Your task to perform on an android device: turn on javascript in the chrome app Image 0: 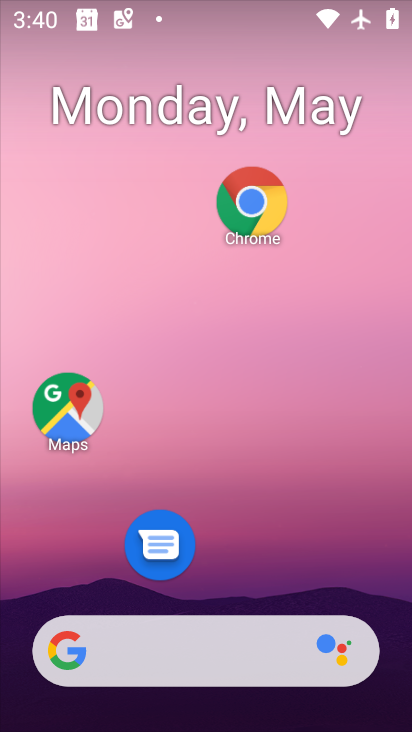
Step 0: drag from (234, 578) to (246, 460)
Your task to perform on an android device: turn on javascript in the chrome app Image 1: 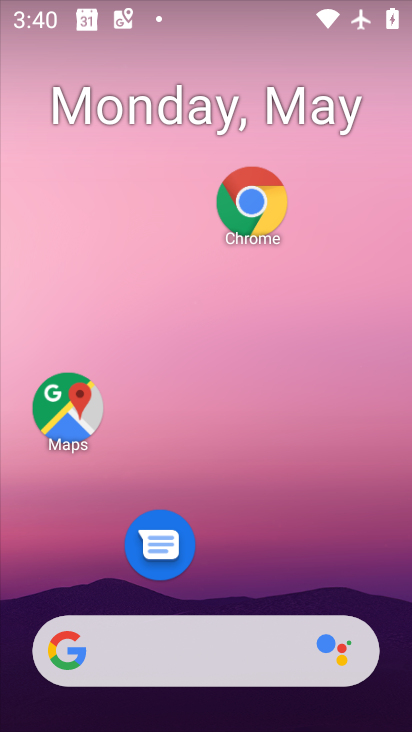
Step 1: click (247, 210)
Your task to perform on an android device: turn on javascript in the chrome app Image 2: 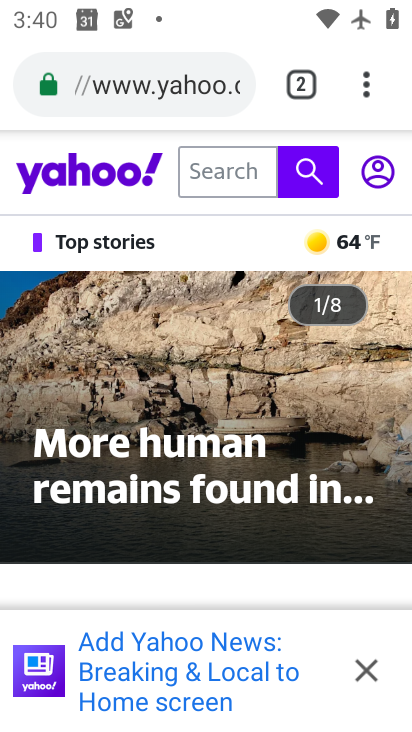
Step 2: click (364, 100)
Your task to perform on an android device: turn on javascript in the chrome app Image 3: 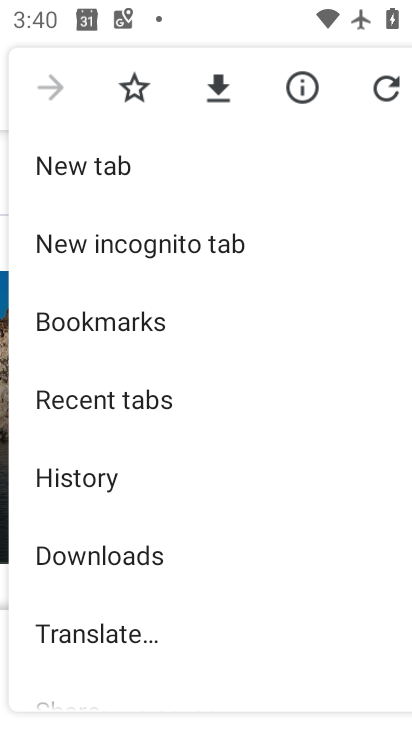
Step 3: drag from (170, 578) to (217, 361)
Your task to perform on an android device: turn on javascript in the chrome app Image 4: 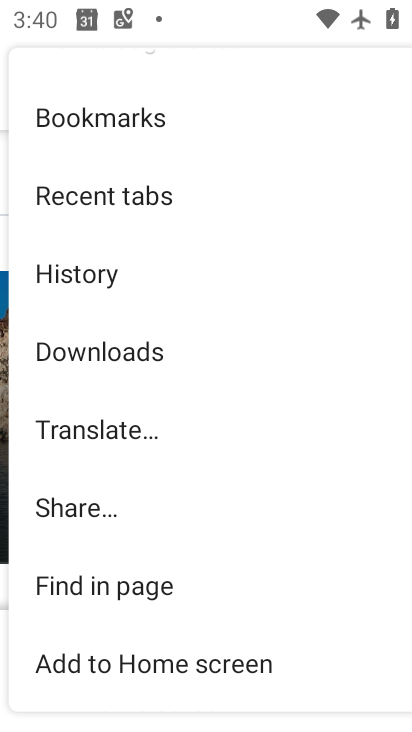
Step 4: drag from (199, 582) to (212, 347)
Your task to perform on an android device: turn on javascript in the chrome app Image 5: 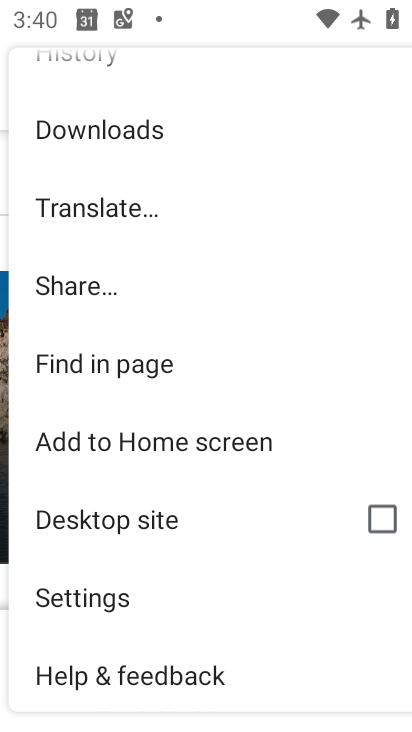
Step 5: drag from (188, 562) to (198, 351)
Your task to perform on an android device: turn on javascript in the chrome app Image 6: 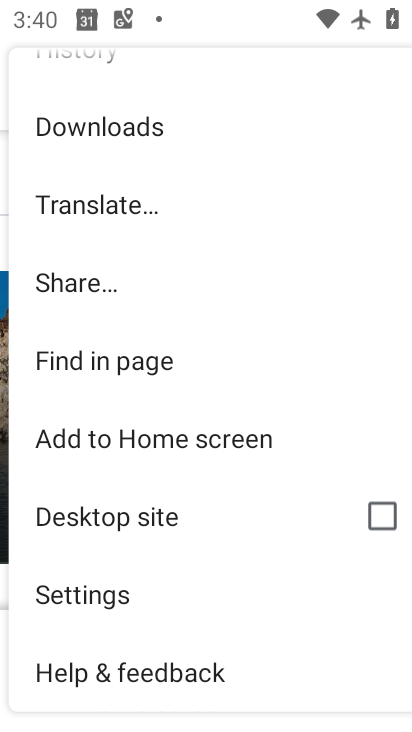
Step 6: click (100, 604)
Your task to perform on an android device: turn on javascript in the chrome app Image 7: 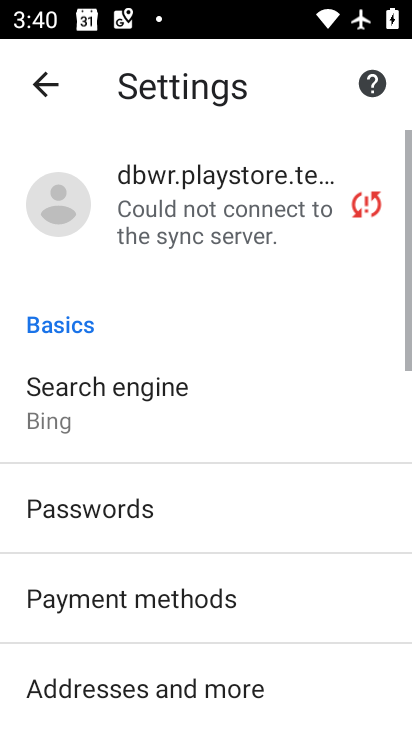
Step 7: drag from (129, 602) to (175, 329)
Your task to perform on an android device: turn on javascript in the chrome app Image 8: 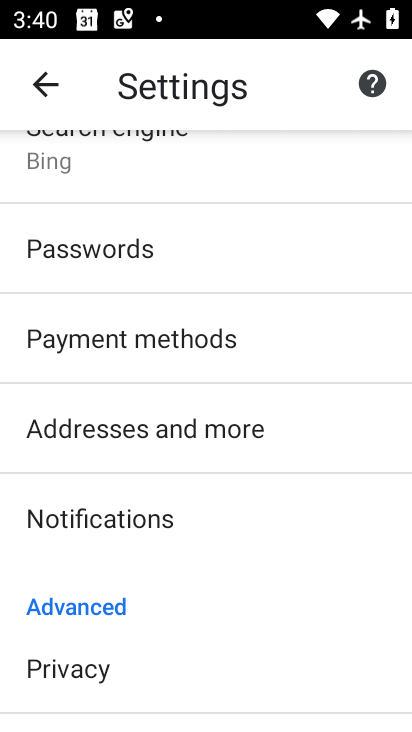
Step 8: drag from (201, 465) to (204, 397)
Your task to perform on an android device: turn on javascript in the chrome app Image 9: 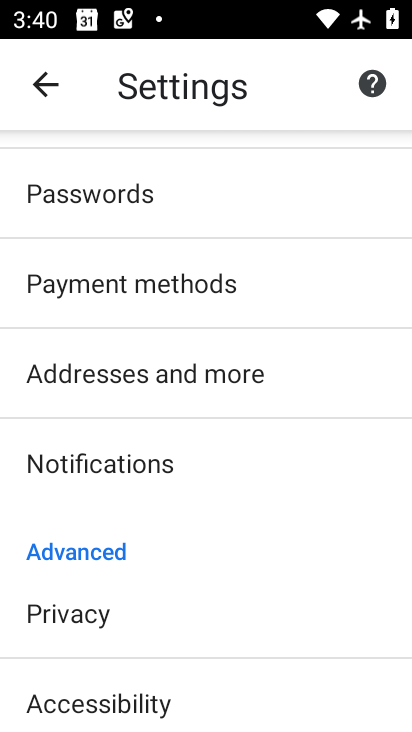
Step 9: drag from (145, 663) to (171, 395)
Your task to perform on an android device: turn on javascript in the chrome app Image 10: 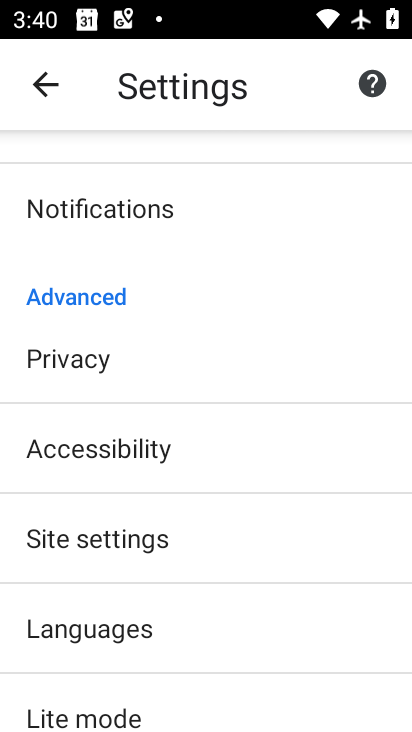
Step 10: click (116, 527)
Your task to perform on an android device: turn on javascript in the chrome app Image 11: 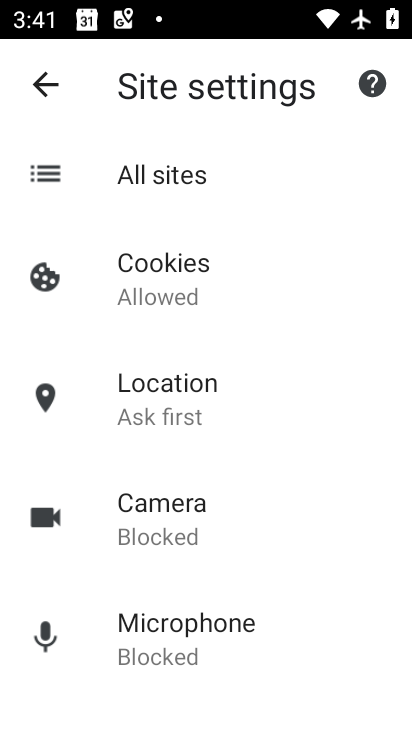
Step 11: drag from (176, 626) to (208, 359)
Your task to perform on an android device: turn on javascript in the chrome app Image 12: 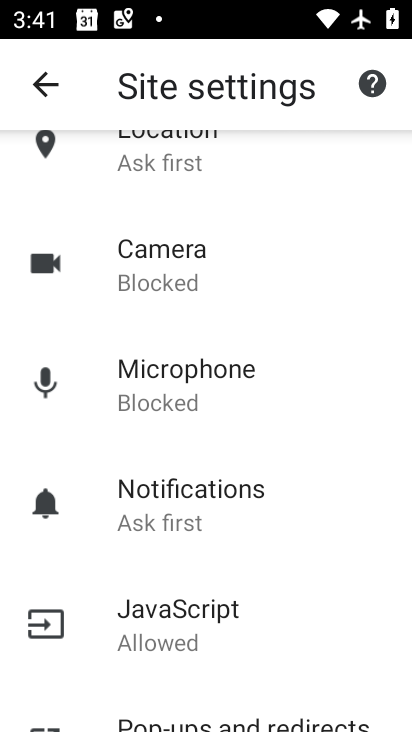
Step 12: click (191, 586)
Your task to perform on an android device: turn on javascript in the chrome app Image 13: 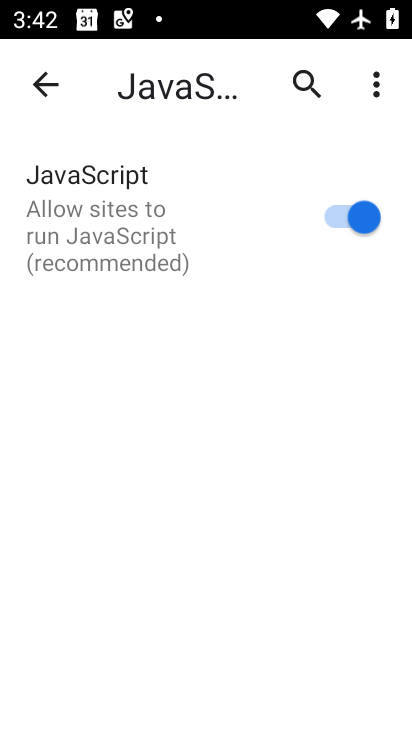
Step 13: task complete